Your task to perform on an android device: check android version Image 0: 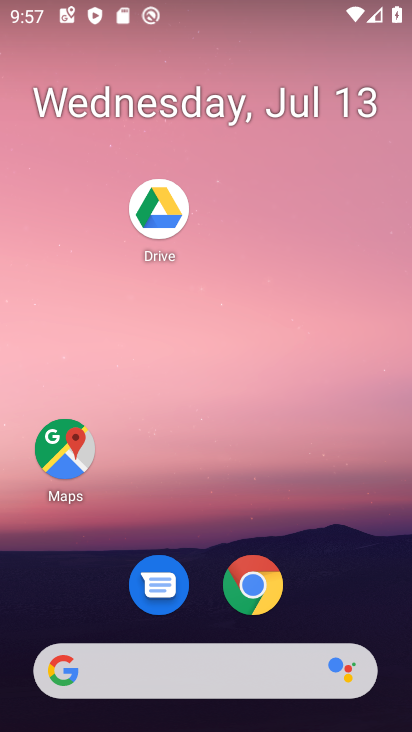
Step 0: press home button
Your task to perform on an android device: check android version Image 1: 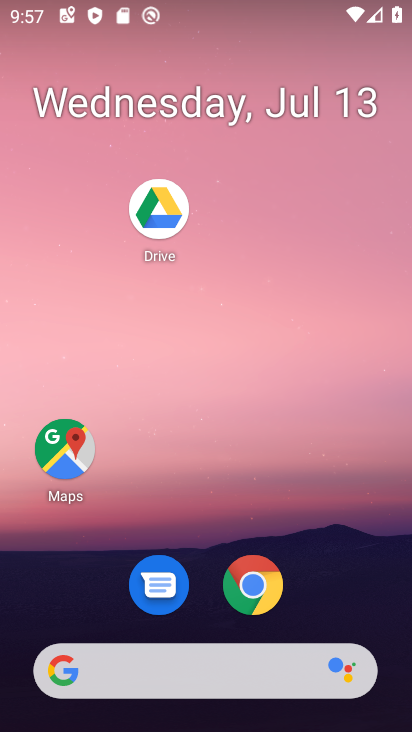
Step 1: drag from (198, 682) to (357, 160)
Your task to perform on an android device: check android version Image 2: 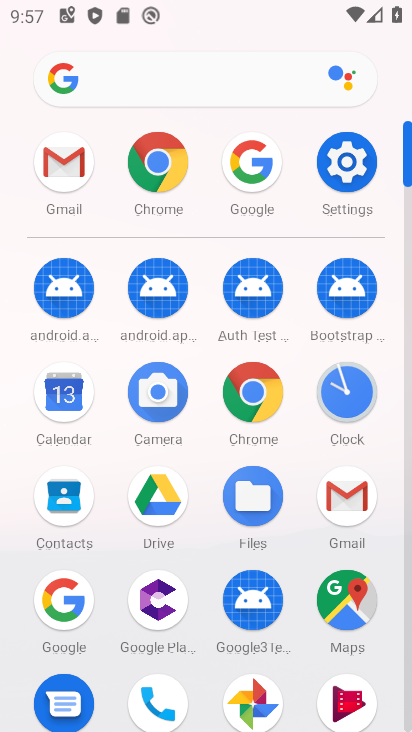
Step 2: click (343, 175)
Your task to perform on an android device: check android version Image 3: 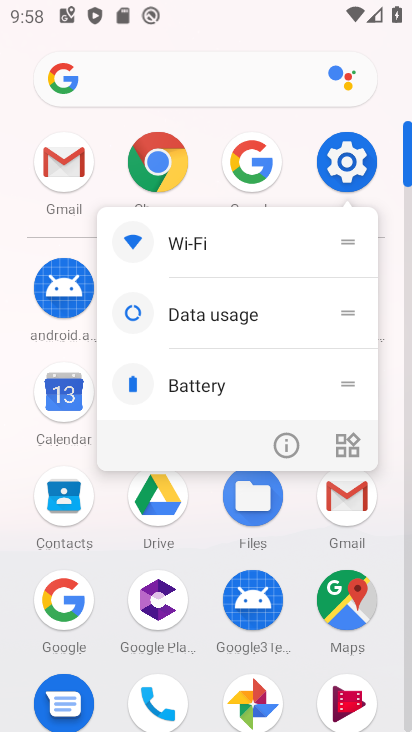
Step 3: click (349, 163)
Your task to perform on an android device: check android version Image 4: 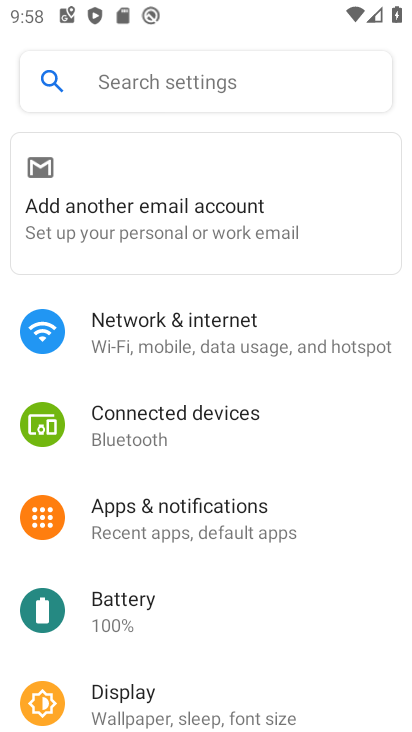
Step 4: drag from (266, 681) to (382, 72)
Your task to perform on an android device: check android version Image 5: 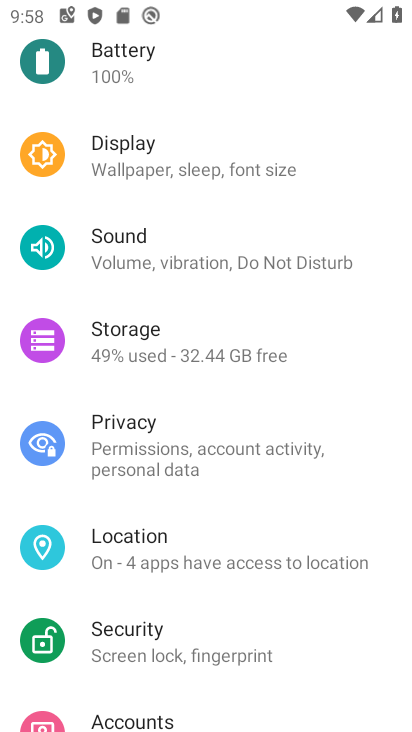
Step 5: drag from (232, 686) to (384, 71)
Your task to perform on an android device: check android version Image 6: 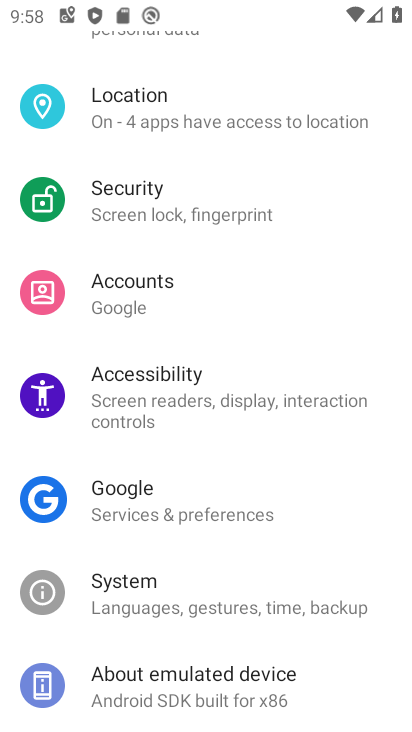
Step 6: click (192, 680)
Your task to perform on an android device: check android version Image 7: 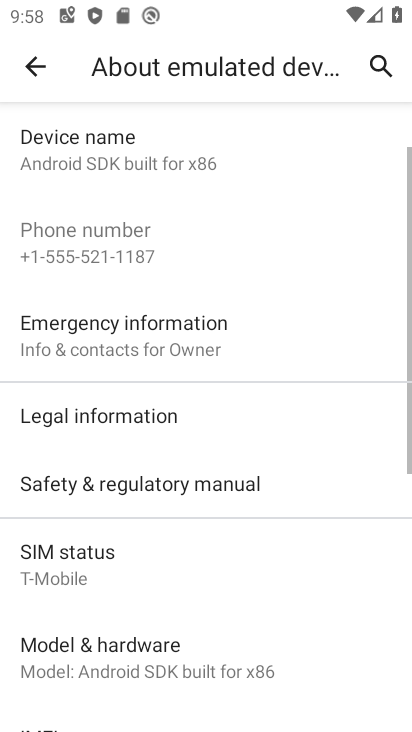
Step 7: drag from (260, 517) to (348, 96)
Your task to perform on an android device: check android version Image 8: 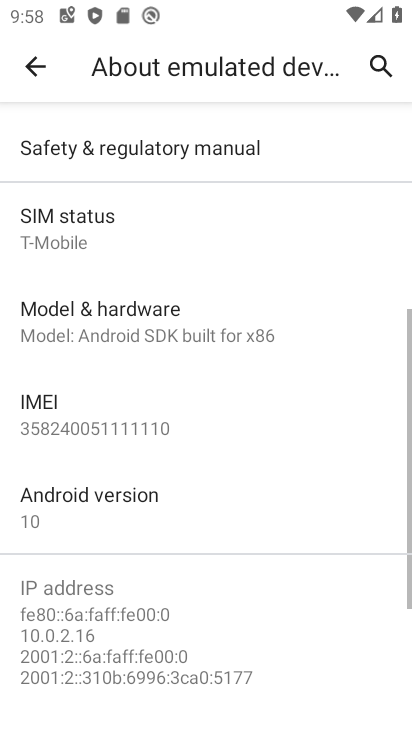
Step 8: click (107, 500)
Your task to perform on an android device: check android version Image 9: 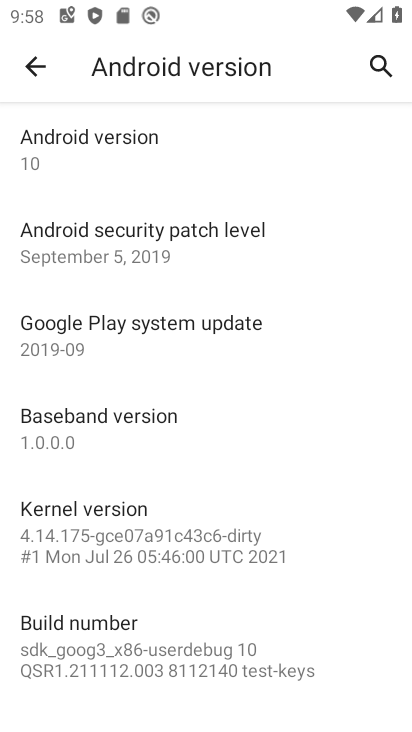
Step 9: task complete